Your task to perform on an android device: choose inbox layout in the gmail app Image 0: 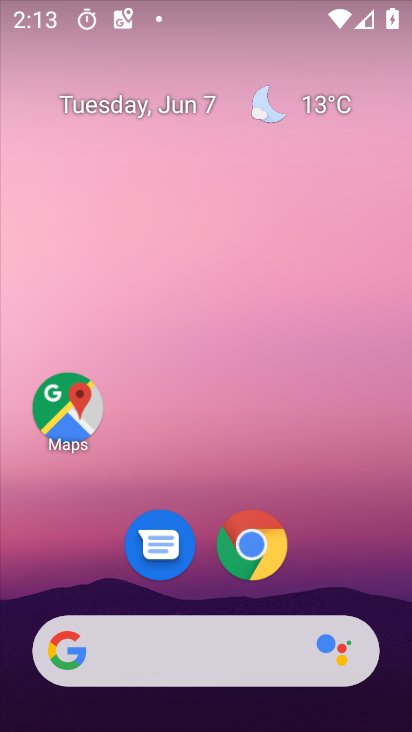
Step 0: drag from (367, 424) to (223, 100)
Your task to perform on an android device: choose inbox layout in the gmail app Image 1: 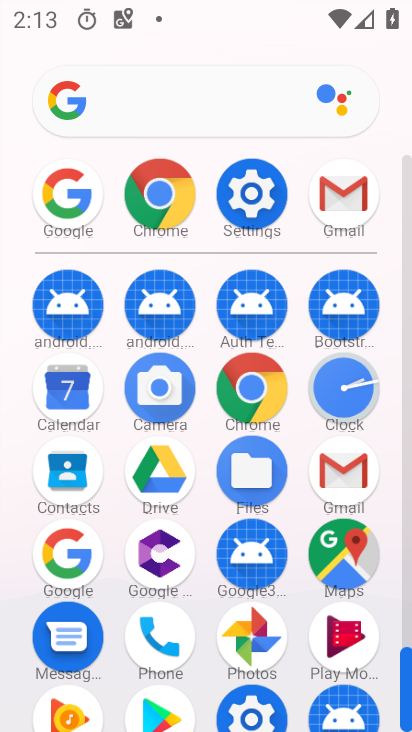
Step 1: click (349, 203)
Your task to perform on an android device: choose inbox layout in the gmail app Image 2: 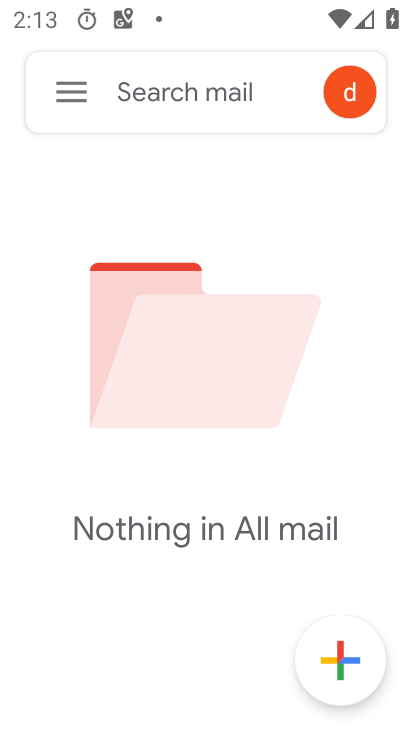
Step 2: click (70, 88)
Your task to perform on an android device: choose inbox layout in the gmail app Image 3: 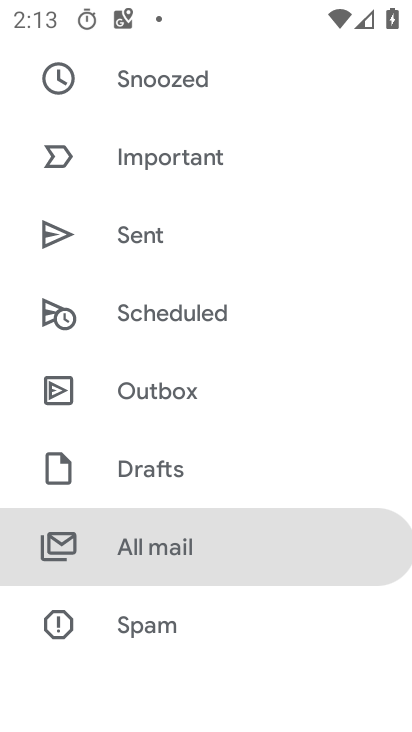
Step 3: drag from (251, 548) to (257, 70)
Your task to perform on an android device: choose inbox layout in the gmail app Image 4: 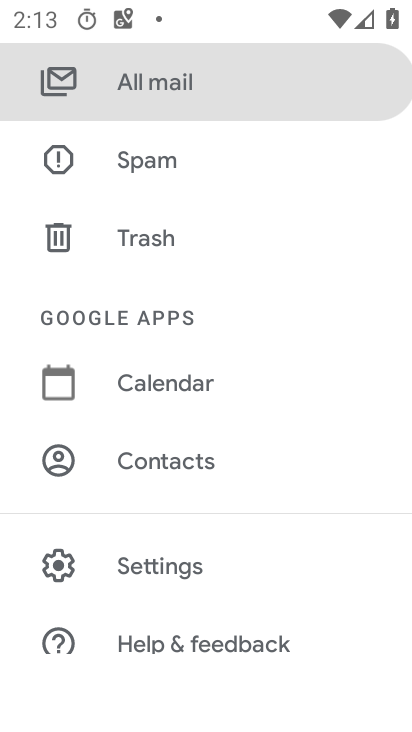
Step 4: click (199, 592)
Your task to perform on an android device: choose inbox layout in the gmail app Image 5: 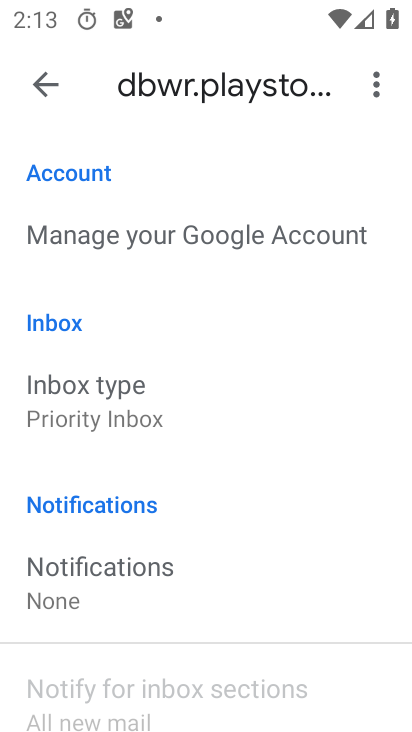
Step 5: click (123, 410)
Your task to perform on an android device: choose inbox layout in the gmail app Image 6: 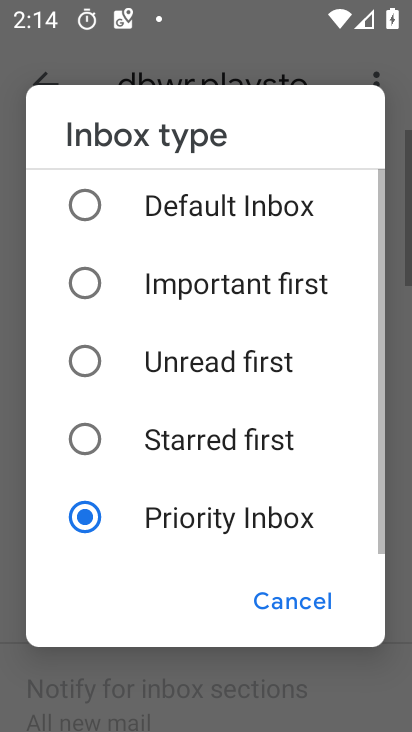
Step 6: click (173, 216)
Your task to perform on an android device: choose inbox layout in the gmail app Image 7: 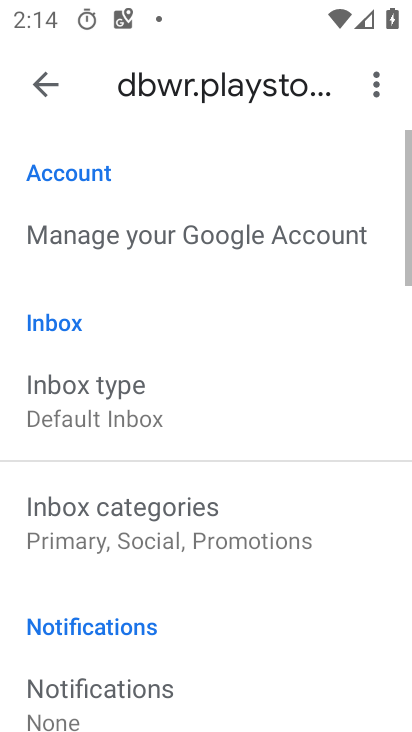
Step 7: task complete